Your task to perform on an android device: turn on bluetooth scan Image 0: 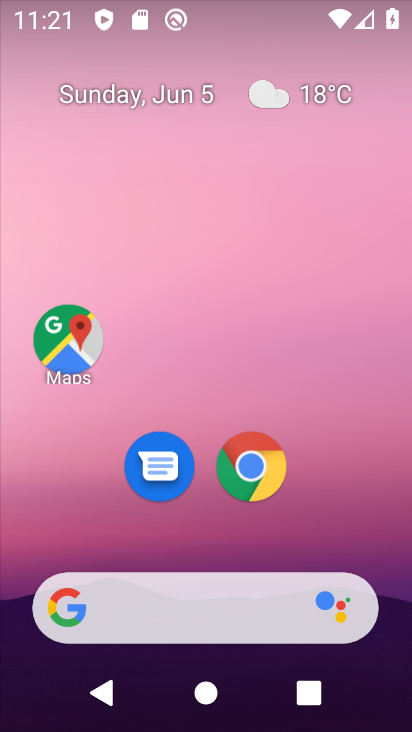
Step 0: press home button
Your task to perform on an android device: turn on bluetooth scan Image 1: 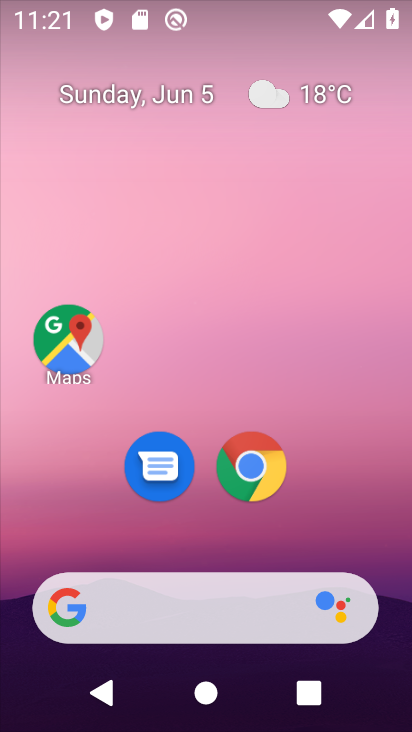
Step 1: drag from (333, 524) to (317, 166)
Your task to perform on an android device: turn on bluetooth scan Image 2: 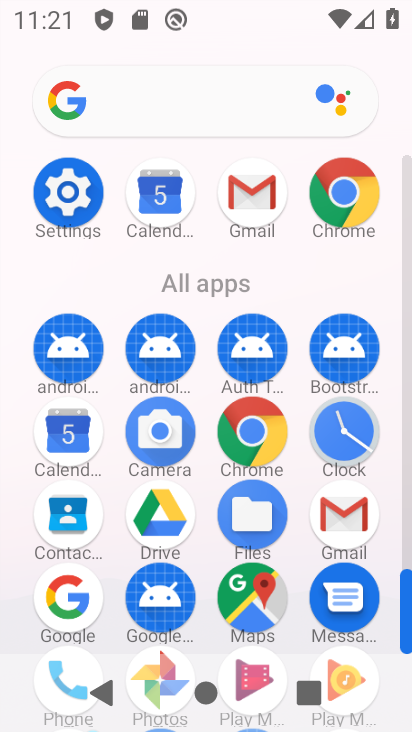
Step 2: click (49, 211)
Your task to perform on an android device: turn on bluetooth scan Image 3: 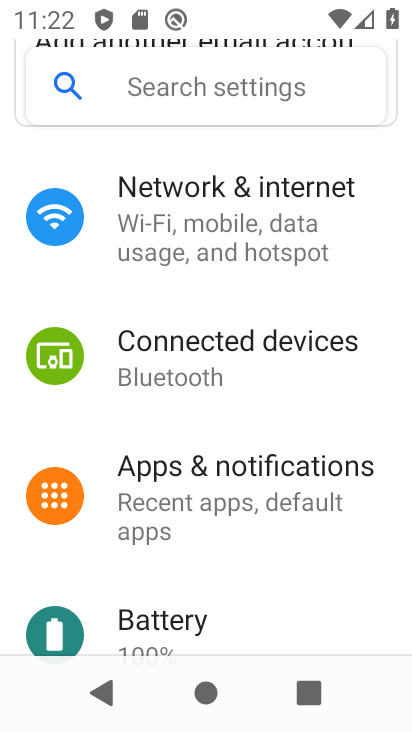
Step 3: drag from (221, 517) to (228, 233)
Your task to perform on an android device: turn on bluetooth scan Image 4: 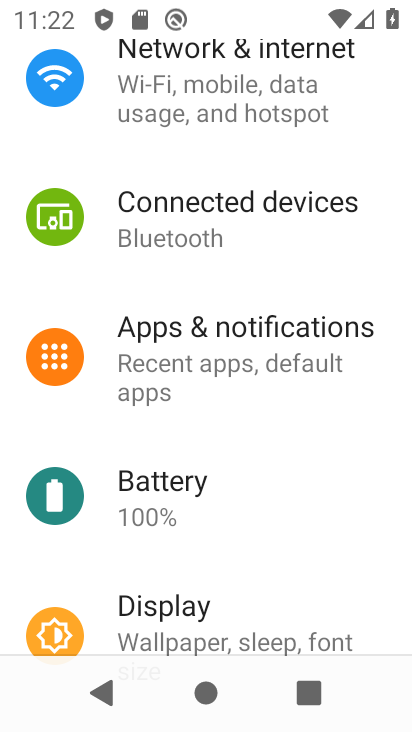
Step 4: drag from (247, 586) to (265, 267)
Your task to perform on an android device: turn on bluetooth scan Image 5: 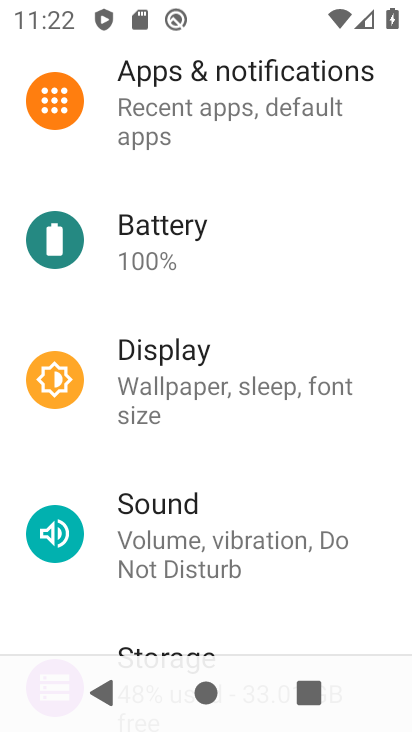
Step 5: drag from (264, 596) to (278, 300)
Your task to perform on an android device: turn on bluetooth scan Image 6: 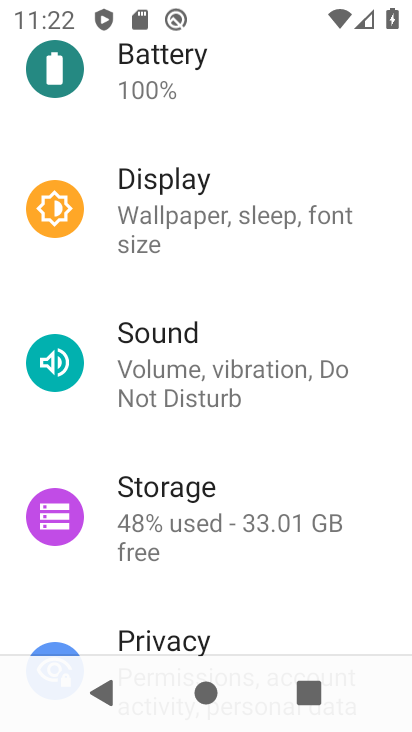
Step 6: drag from (235, 590) to (257, 265)
Your task to perform on an android device: turn on bluetooth scan Image 7: 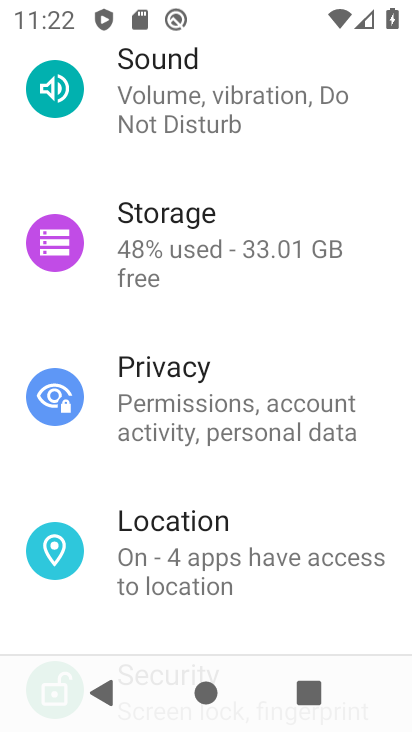
Step 7: drag from (247, 571) to (247, 340)
Your task to perform on an android device: turn on bluetooth scan Image 8: 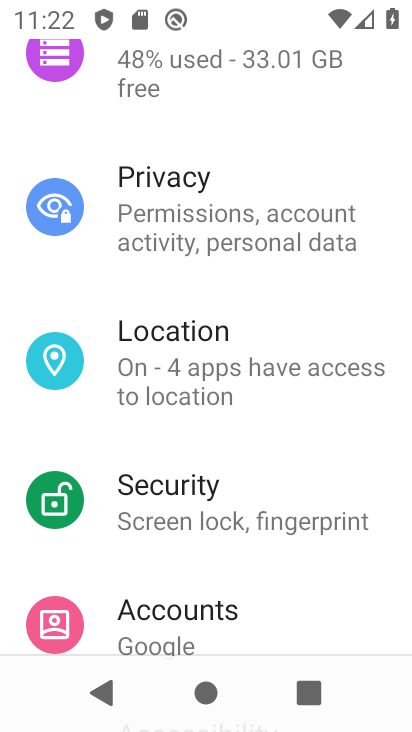
Step 8: click (226, 347)
Your task to perform on an android device: turn on bluetooth scan Image 9: 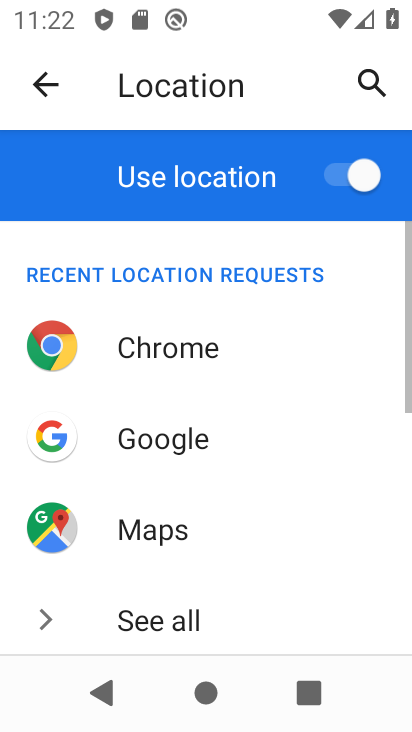
Step 9: drag from (305, 585) to (299, 306)
Your task to perform on an android device: turn on bluetooth scan Image 10: 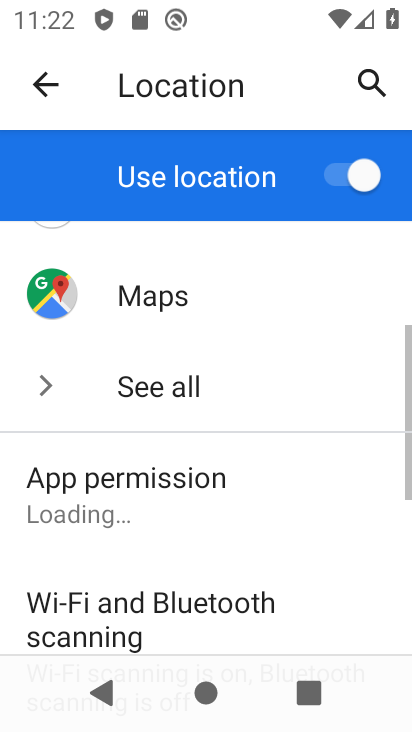
Step 10: drag from (301, 596) to (301, 241)
Your task to perform on an android device: turn on bluetooth scan Image 11: 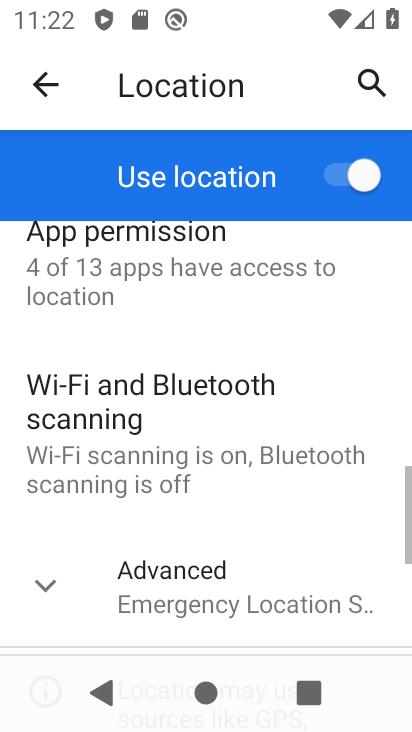
Step 11: click (221, 416)
Your task to perform on an android device: turn on bluetooth scan Image 12: 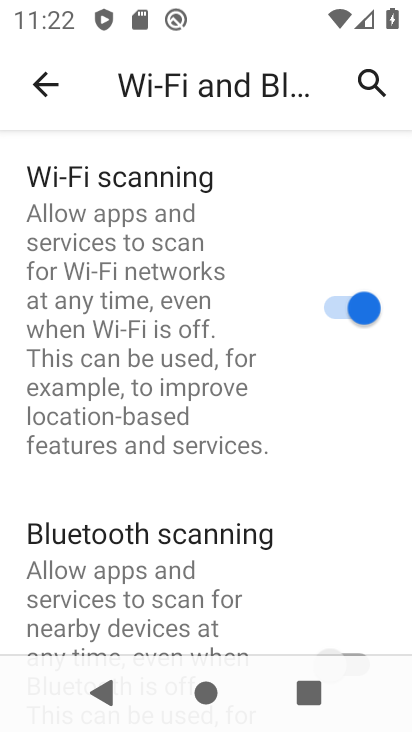
Step 12: drag from (241, 595) to (247, 299)
Your task to perform on an android device: turn on bluetooth scan Image 13: 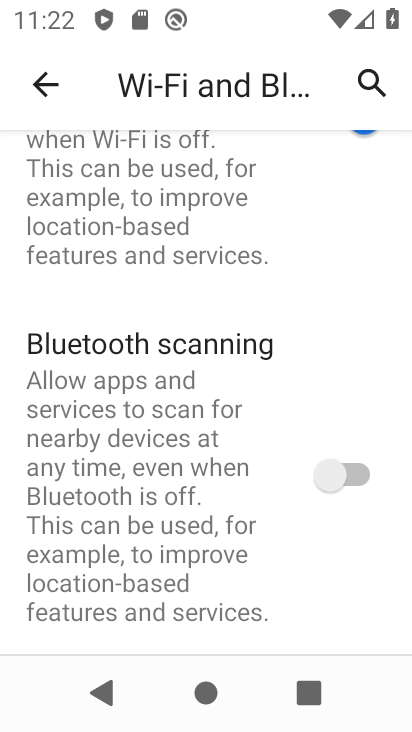
Step 13: click (355, 481)
Your task to perform on an android device: turn on bluetooth scan Image 14: 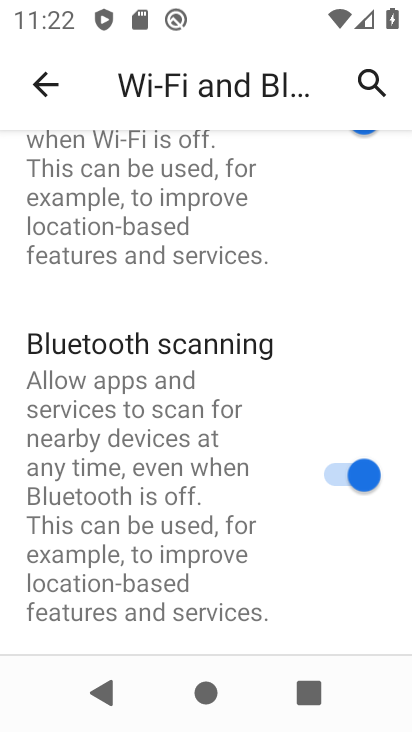
Step 14: task complete